Your task to perform on an android device: What's the weather like in Chicago? Image 0: 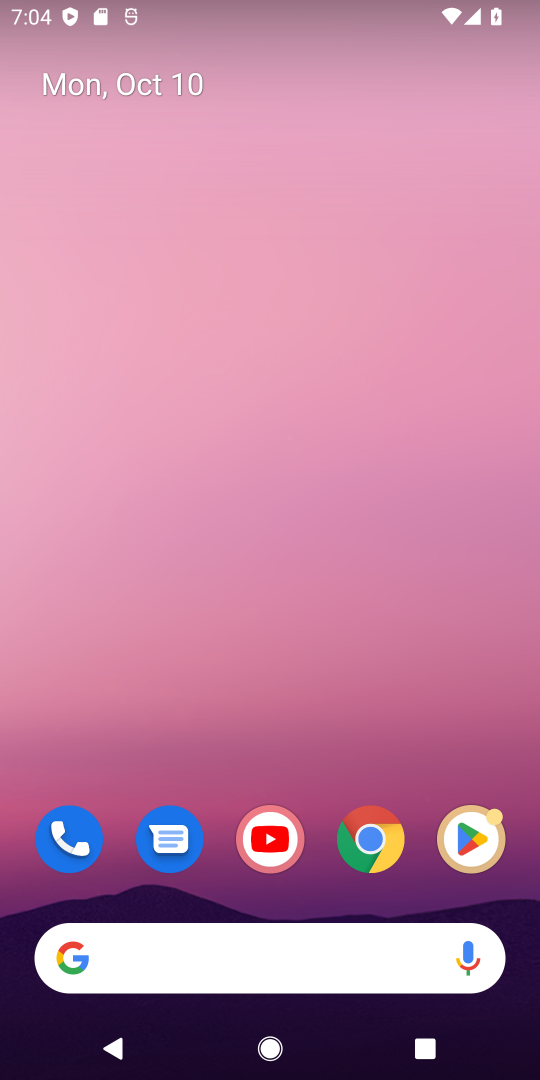
Step 0: click (328, 952)
Your task to perform on an android device: What's the weather like in Chicago? Image 1: 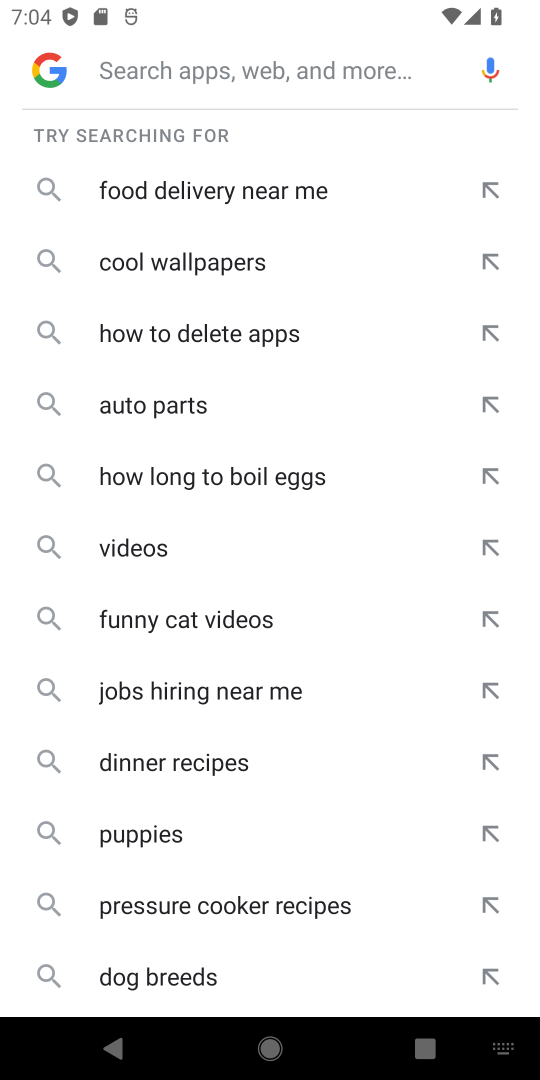
Step 1: type "What's the weather like in Chicago?"
Your task to perform on an android device: What's the weather like in Chicago? Image 2: 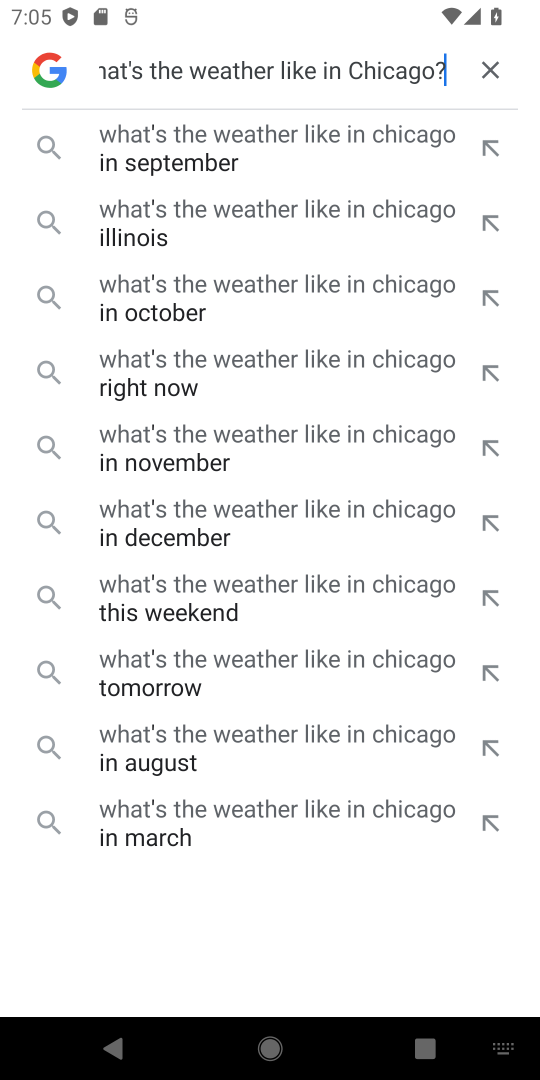
Step 2: click (182, 368)
Your task to perform on an android device: What's the weather like in Chicago? Image 3: 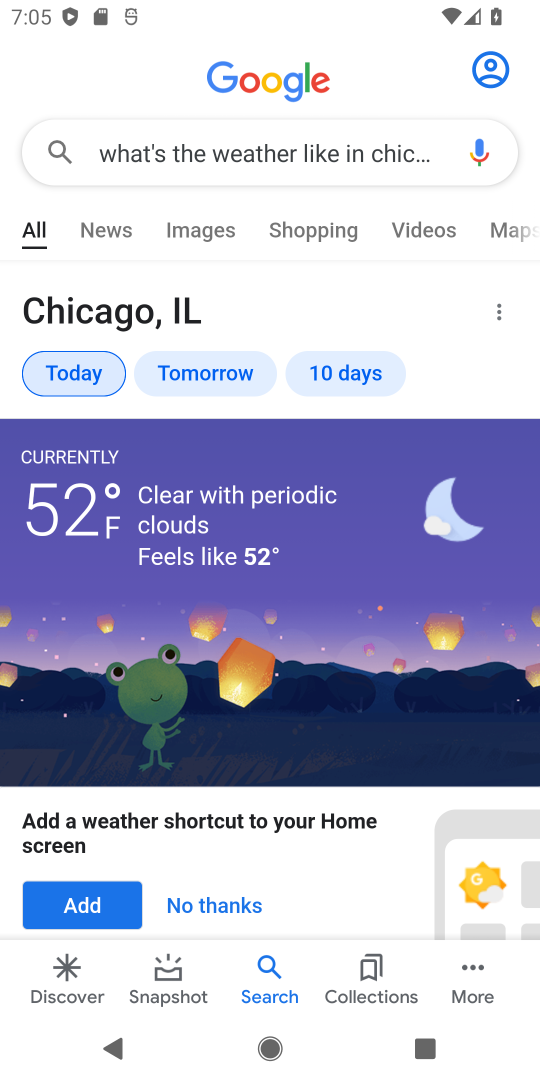
Step 3: task complete